Your task to perform on an android device: toggle notification dots Image 0: 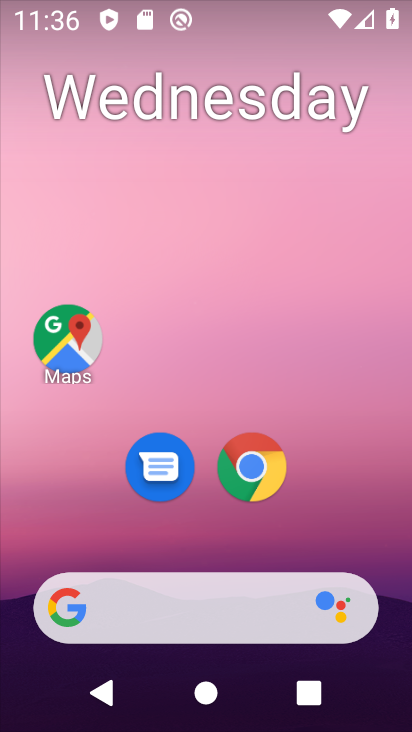
Step 0: drag from (162, 585) to (323, 129)
Your task to perform on an android device: toggle notification dots Image 1: 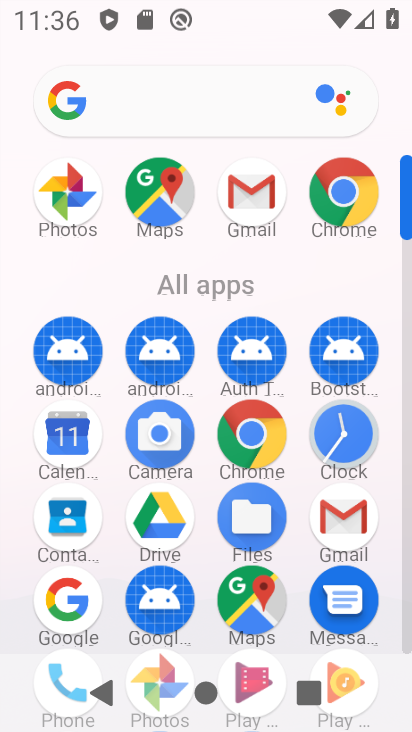
Step 1: drag from (227, 590) to (342, 243)
Your task to perform on an android device: toggle notification dots Image 2: 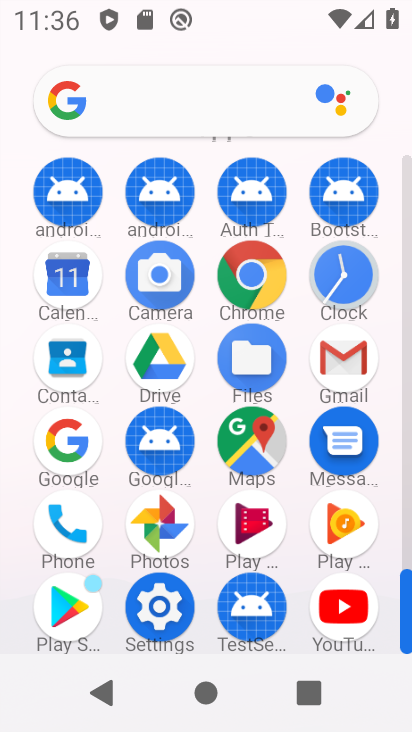
Step 2: click (172, 611)
Your task to perform on an android device: toggle notification dots Image 3: 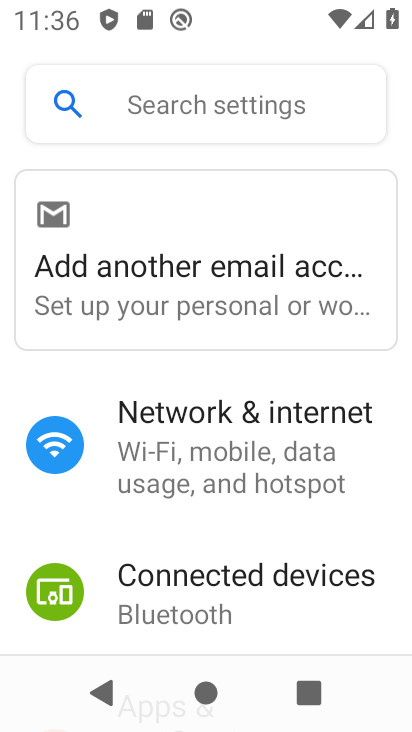
Step 3: drag from (166, 644) to (367, 173)
Your task to perform on an android device: toggle notification dots Image 4: 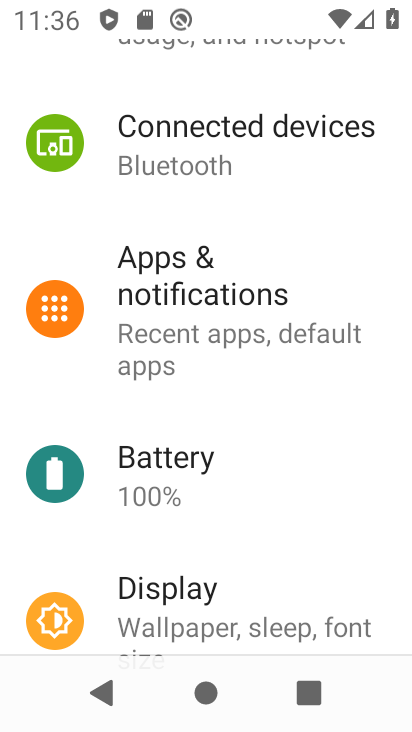
Step 4: drag from (232, 594) to (211, 661)
Your task to perform on an android device: toggle notification dots Image 5: 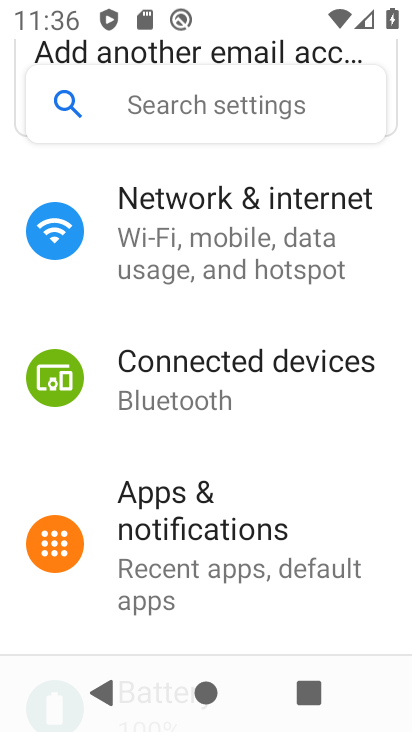
Step 5: drag from (249, 516) to (313, 323)
Your task to perform on an android device: toggle notification dots Image 6: 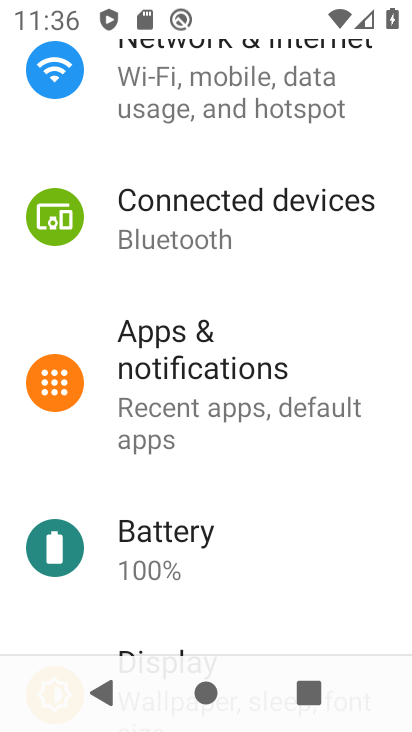
Step 6: click (245, 358)
Your task to perform on an android device: toggle notification dots Image 7: 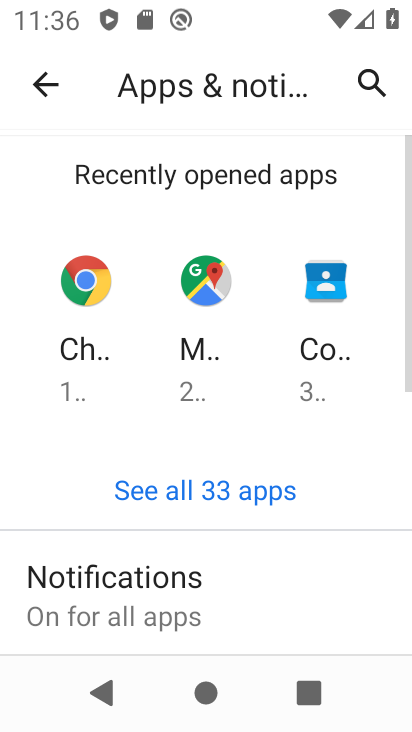
Step 7: click (171, 583)
Your task to perform on an android device: toggle notification dots Image 8: 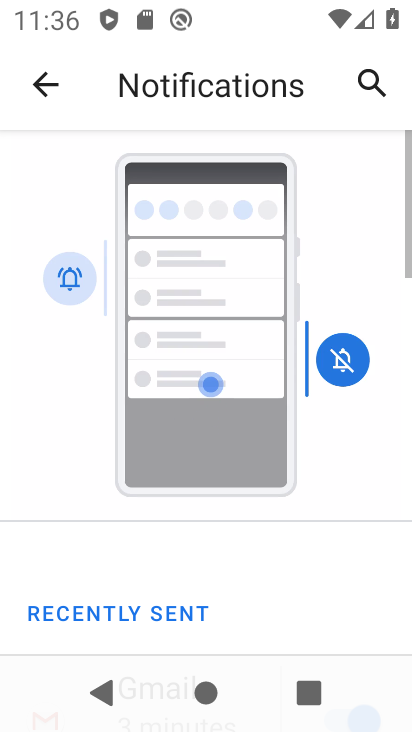
Step 8: drag from (218, 587) to (364, 107)
Your task to perform on an android device: toggle notification dots Image 9: 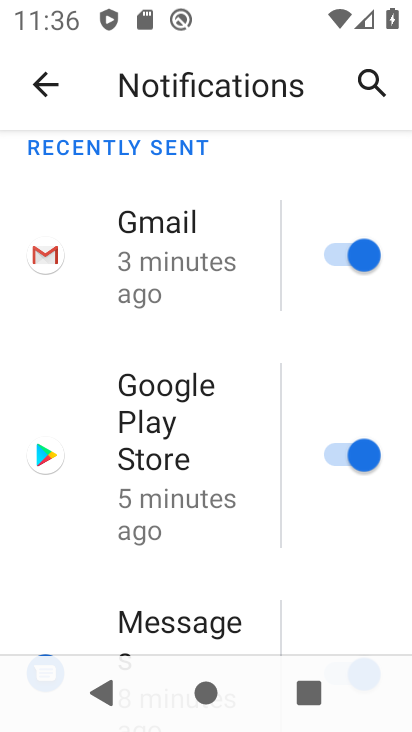
Step 9: drag from (220, 549) to (342, 183)
Your task to perform on an android device: toggle notification dots Image 10: 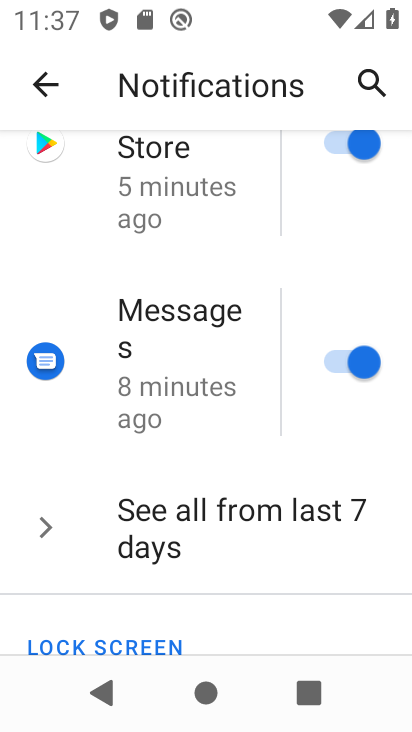
Step 10: drag from (192, 631) to (375, 154)
Your task to perform on an android device: toggle notification dots Image 11: 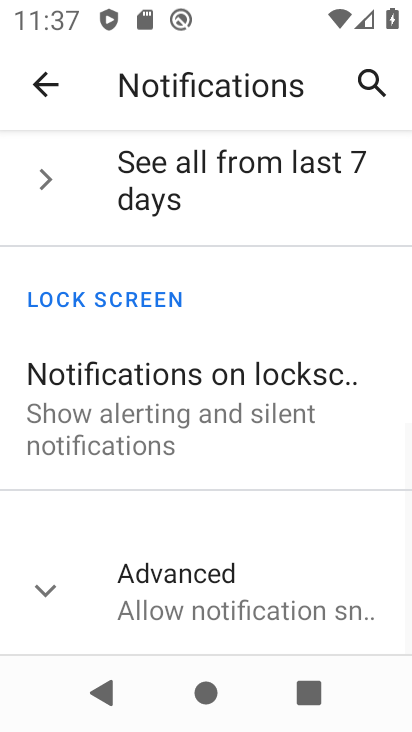
Step 11: click (180, 602)
Your task to perform on an android device: toggle notification dots Image 12: 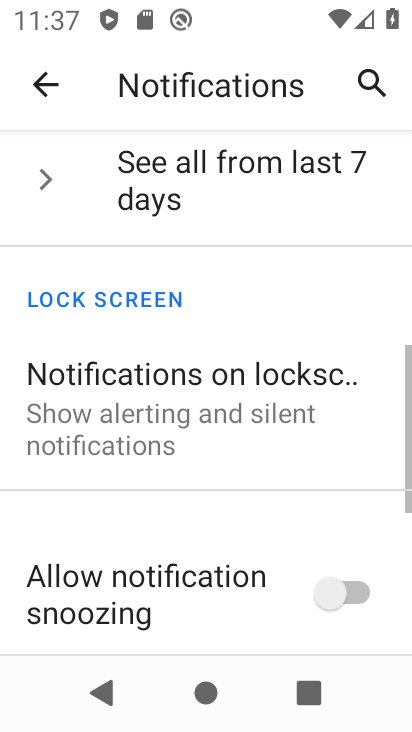
Step 12: drag from (169, 606) to (319, 135)
Your task to perform on an android device: toggle notification dots Image 13: 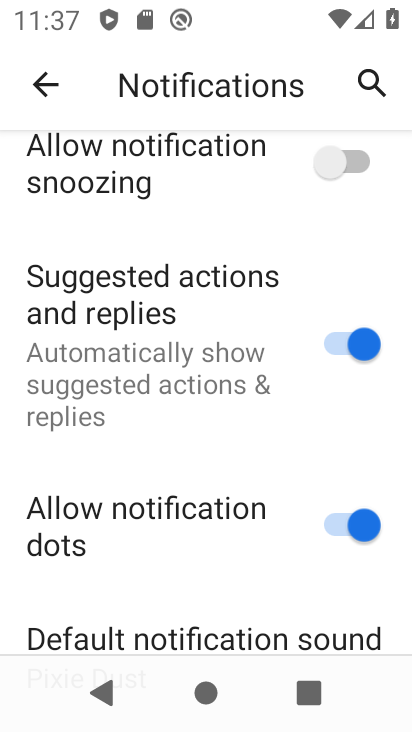
Step 13: click (341, 525)
Your task to perform on an android device: toggle notification dots Image 14: 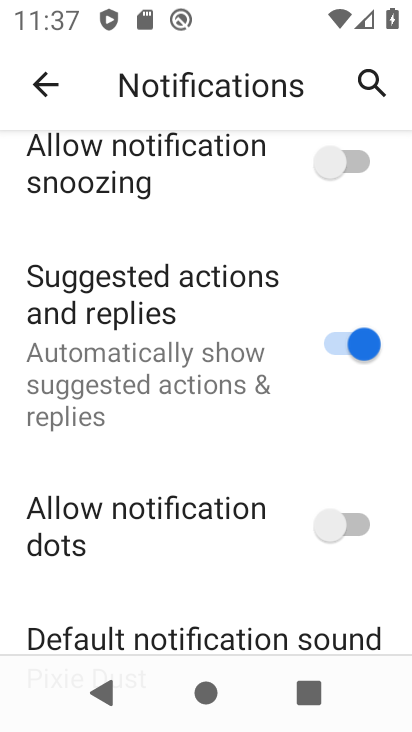
Step 14: task complete